Your task to perform on an android device: allow notifications from all sites in the chrome app Image 0: 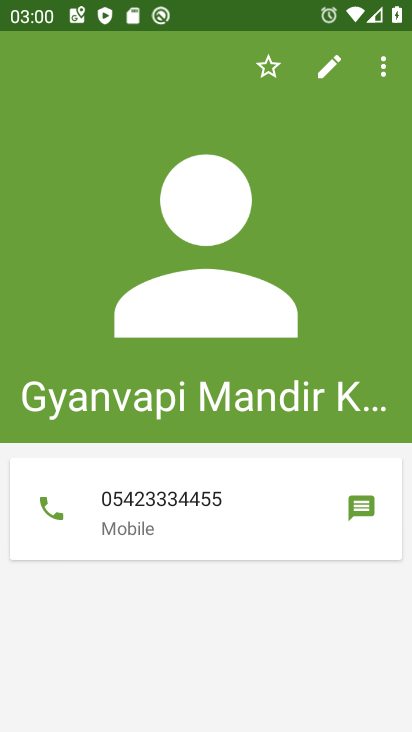
Step 0: press home button
Your task to perform on an android device: allow notifications from all sites in the chrome app Image 1: 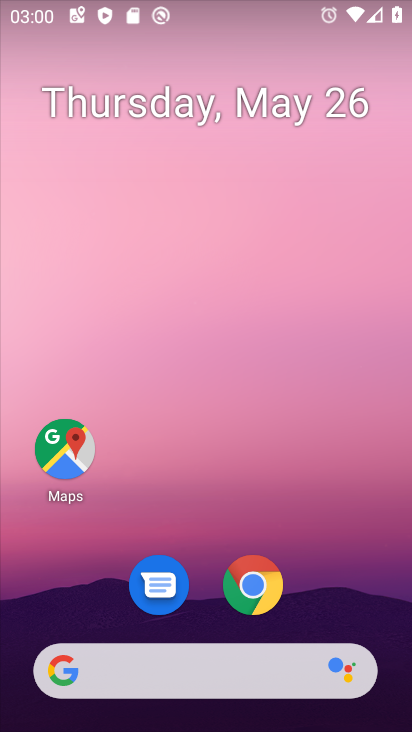
Step 1: click (258, 583)
Your task to perform on an android device: allow notifications from all sites in the chrome app Image 2: 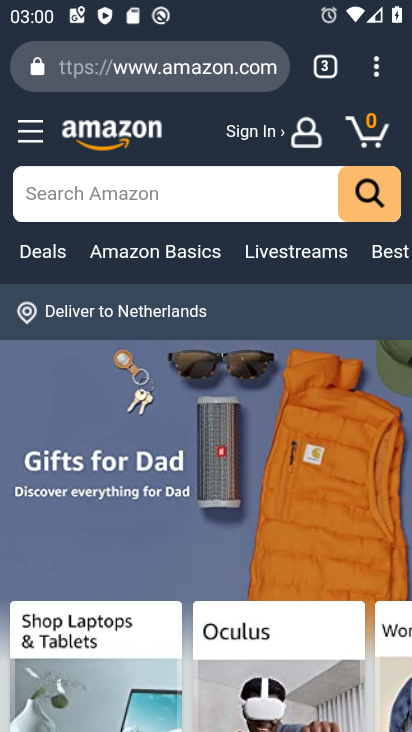
Step 2: click (375, 70)
Your task to perform on an android device: allow notifications from all sites in the chrome app Image 3: 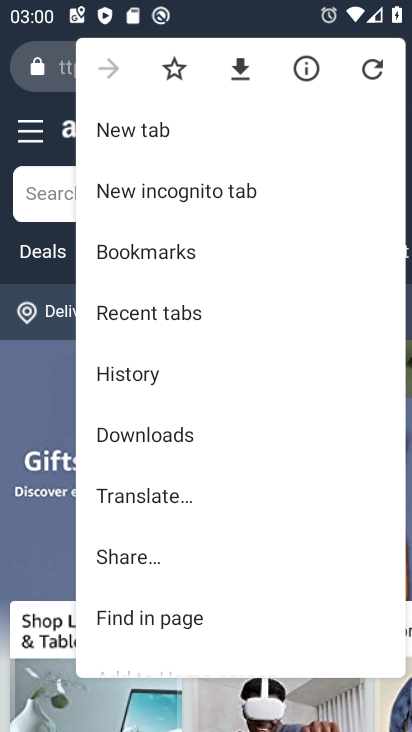
Step 3: drag from (243, 527) to (261, 182)
Your task to perform on an android device: allow notifications from all sites in the chrome app Image 4: 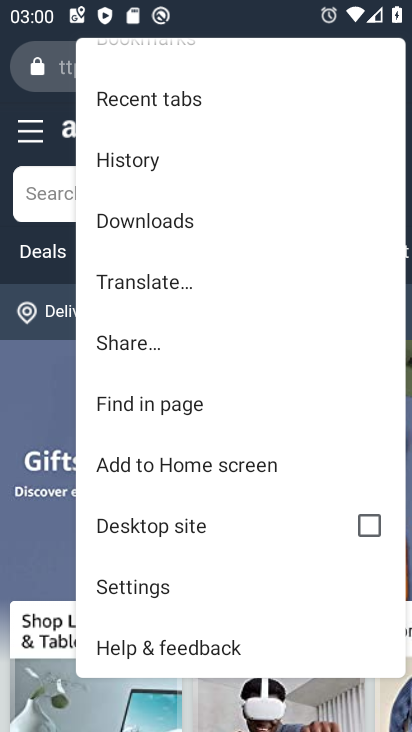
Step 4: click (158, 586)
Your task to perform on an android device: allow notifications from all sites in the chrome app Image 5: 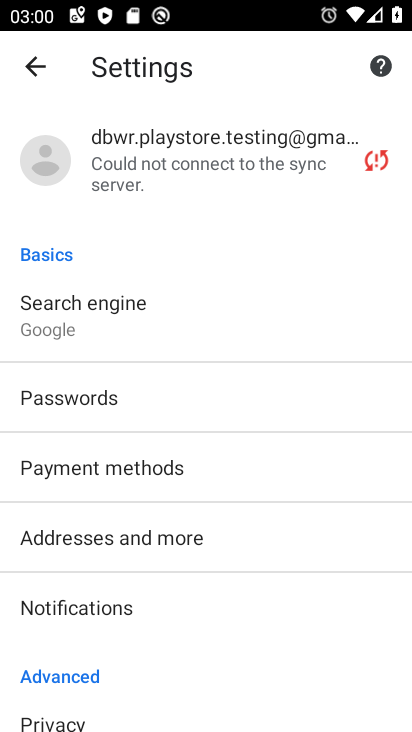
Step 5: click (163, 599)
Your task to perform on an android device: allow notifications from all sites in the chrome app Image 6: 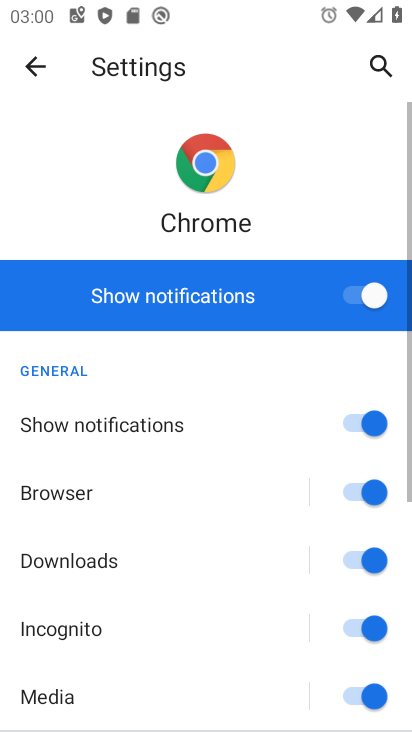
Step 6: task complete